Your task to perform on an android device: install app "Chime – Mobile Banking" Image 0: 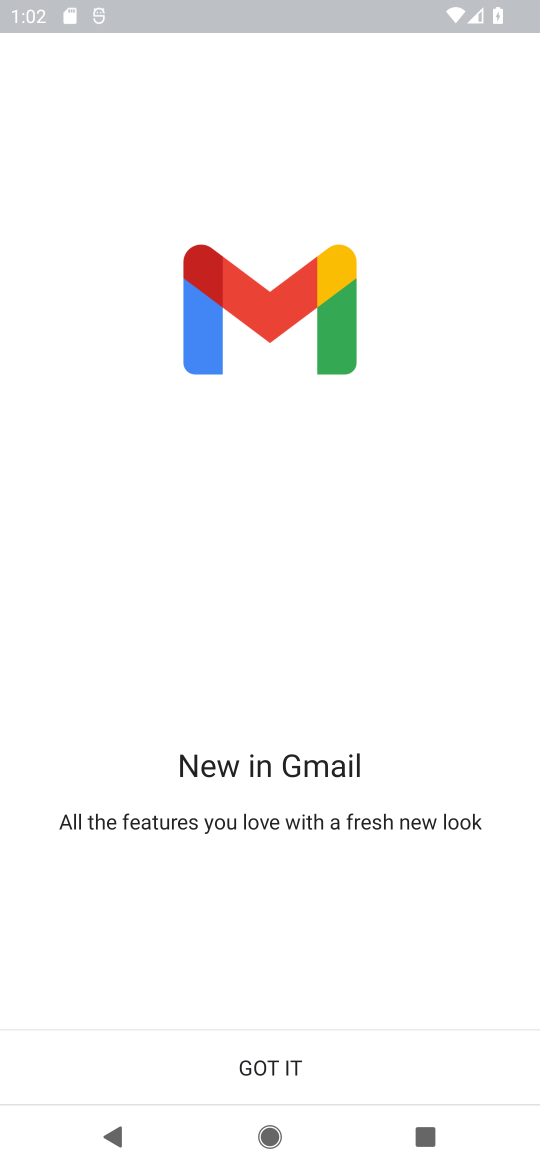
Step 0: press home button
Your task to perform on an android device: install app "Chime – Mobile Banking" Image 1: 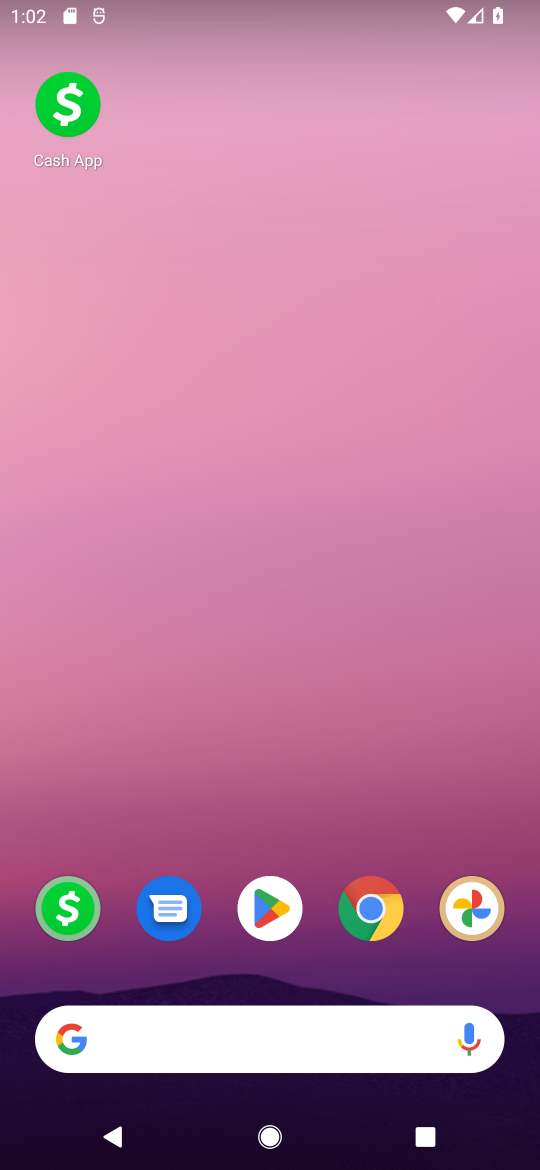
Step 1: click (272, 911)
Your task to perform on an android device: install app "Chime – Mobile Banking" Image 2: 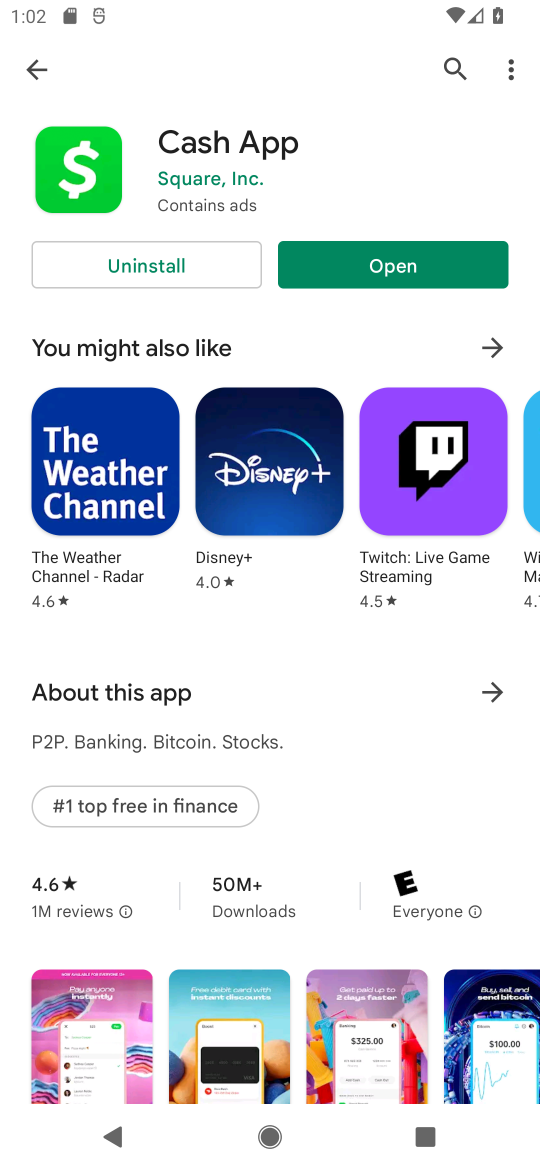
Step 2: click (454, 60)
Your task to perform on an android device: install app "Chime – Mobile Banking" Image 3: 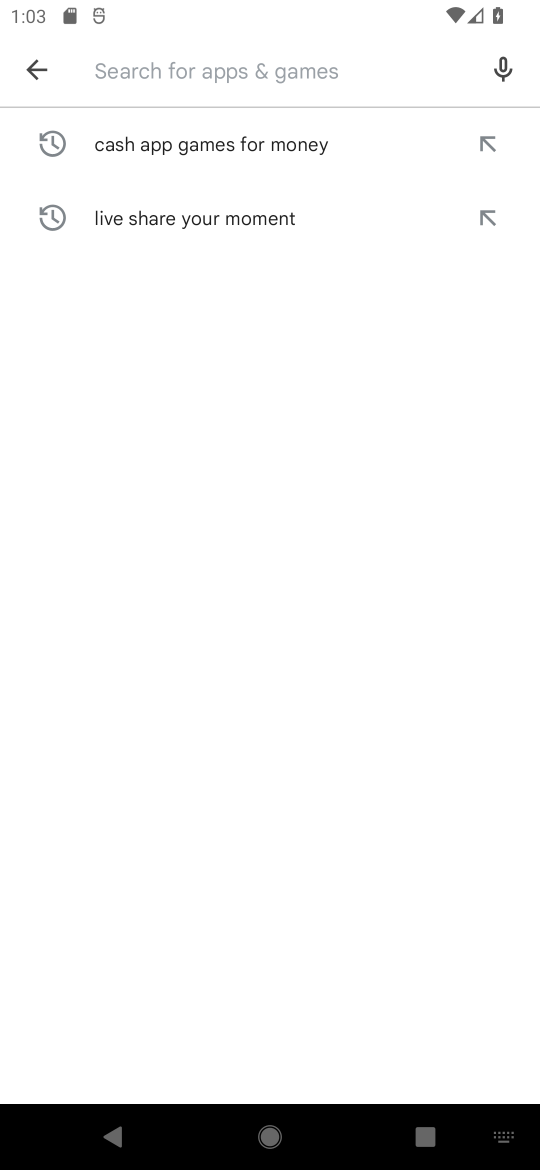
Step 3: type "chime  mobile banking "
Your task to perform on an android device: install app "Chime – Mobile Banking" Image 4: 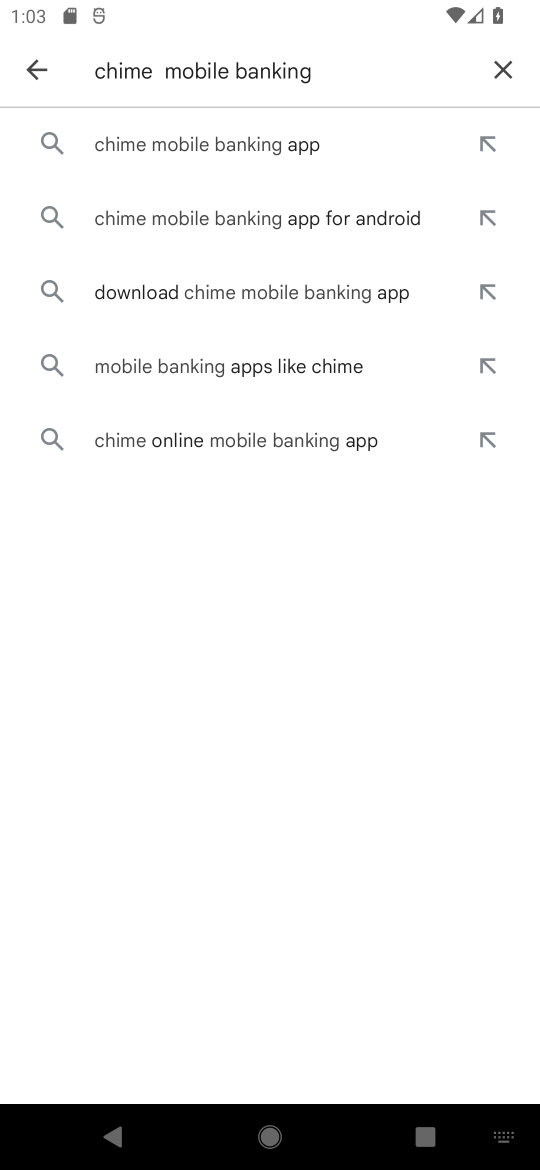
Step 4: click (341, 153)
Your task to perform on an android device: install app "Chime – Mobile Banking" Image 5: 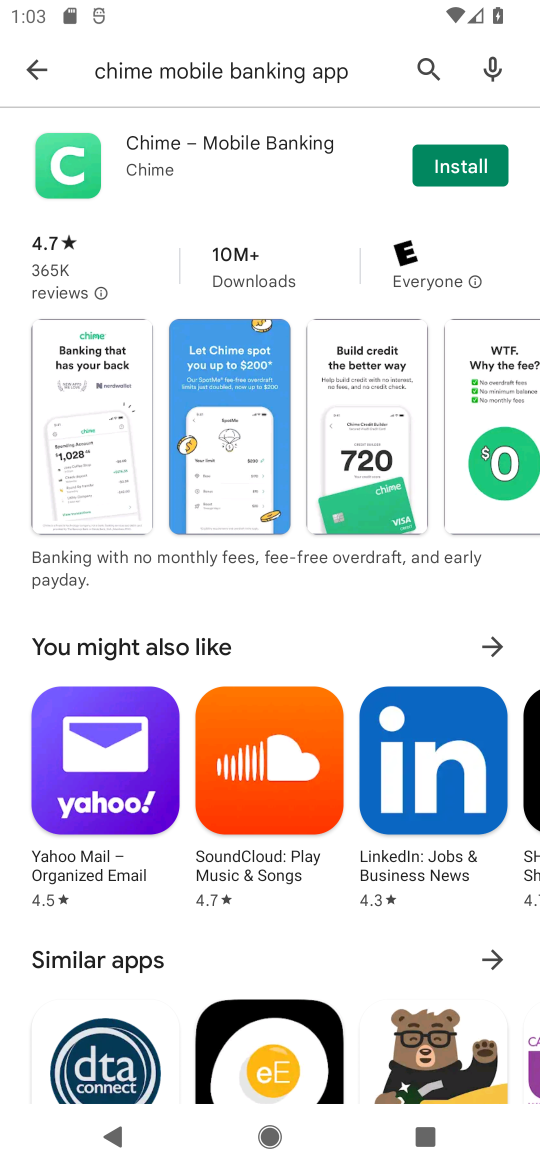
Step 5: click (477, 173)
Your task to perform on an android device: install app "Chime – Mobile Banking" Image 6: 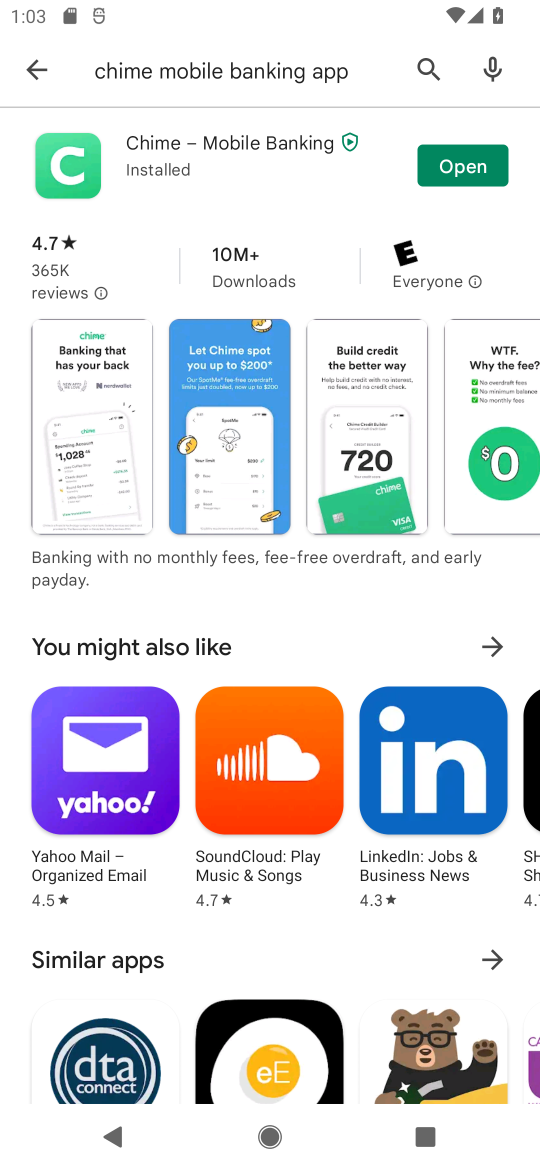
Step 6: task complete